Your task to perform on an android device: empty trash in google photos Image 0: 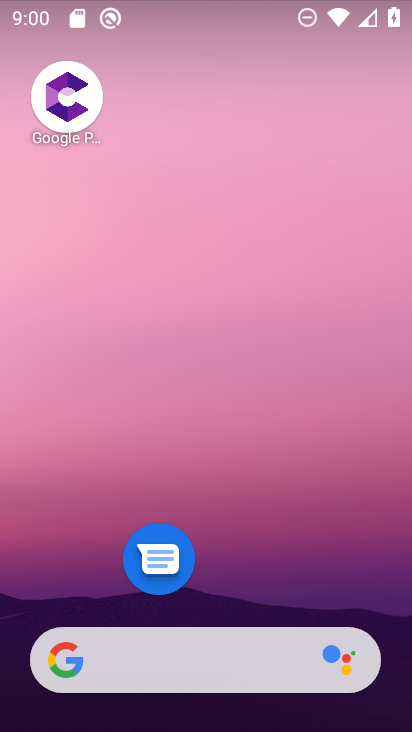
Step 0: drag from (271, 674) to (235, 195)
Your task to perform on an android device: empty trash in google photos Image 1: 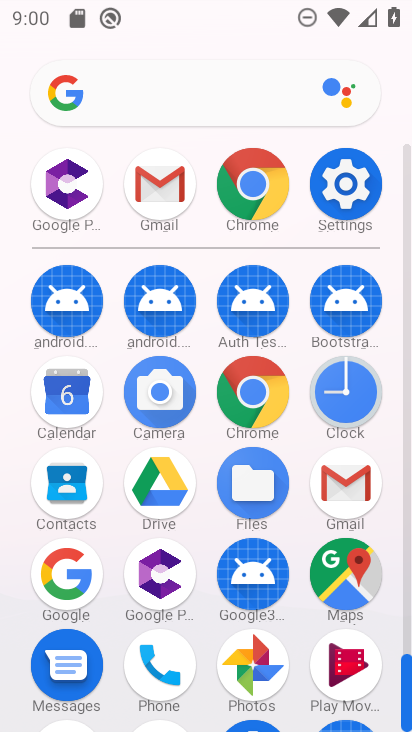
Step 1: click (252, 659)
Your task to perform on an android device: empty trash in google photos Image 2: 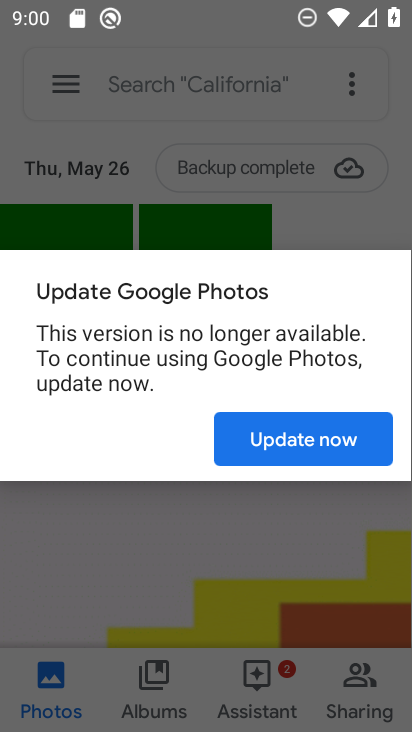
Step 2: click (297, 438)
Your task to perform on an android device: empty trash in google photos Image 3: 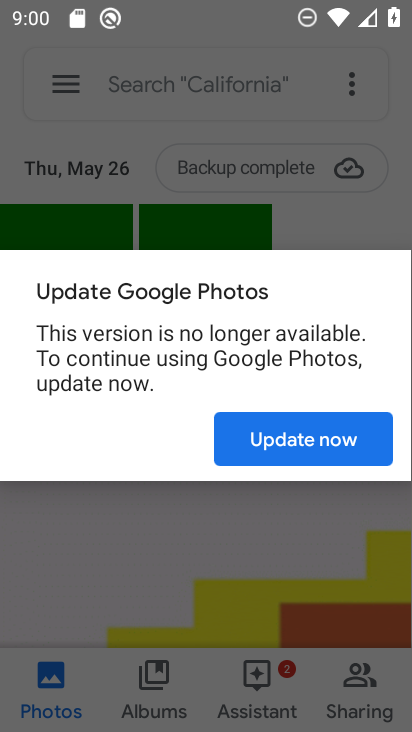
Step 3: click (294, 438)
Your task to perform on an android device: empty trash in google photos Image 4: 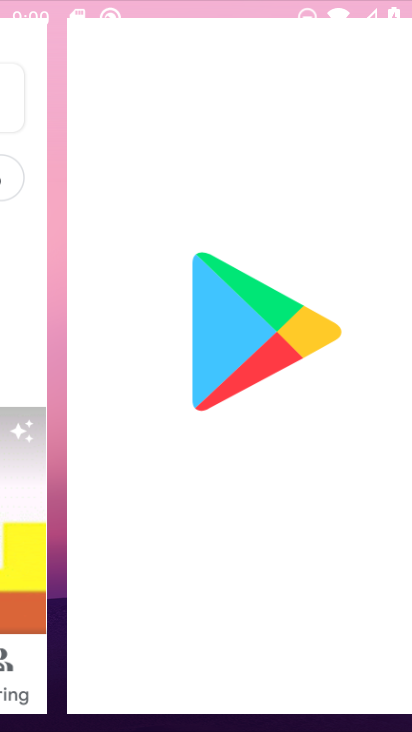
Step 4: click (294, 437)
Your task to perform on an android device: empty trash in google photos Image 5: 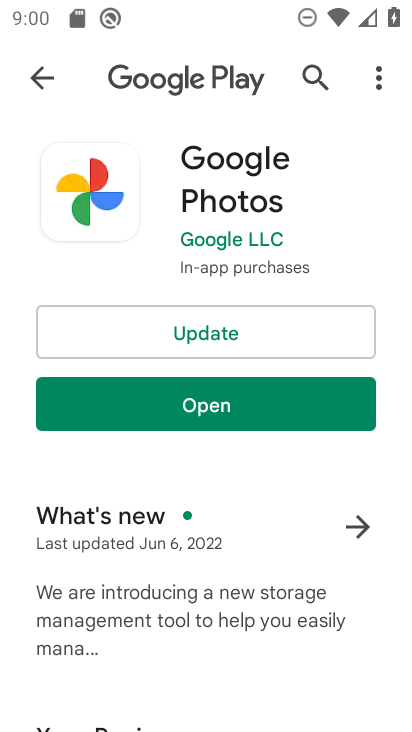
Step 5: click (200, 315)
Your task to perform on an android device: empty trash in google photos Image 6: 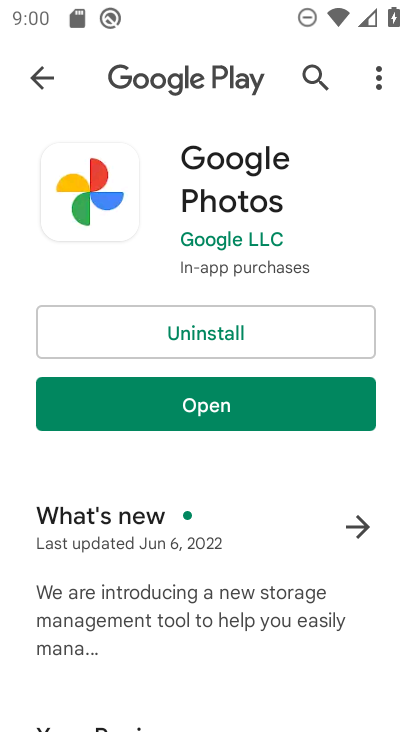
Step 6: click (209, 409)
Your task to perform on an android device: empty trash in google photos Image 7: 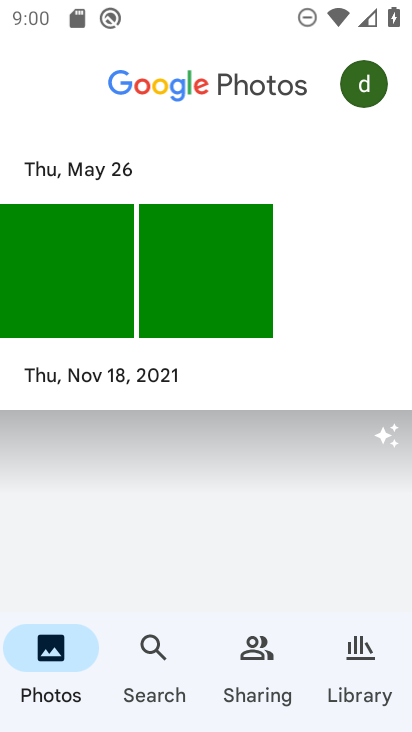
Step 7: task complete